Your task to perform on an android device: turn on javascript in the chrome app Image 0: 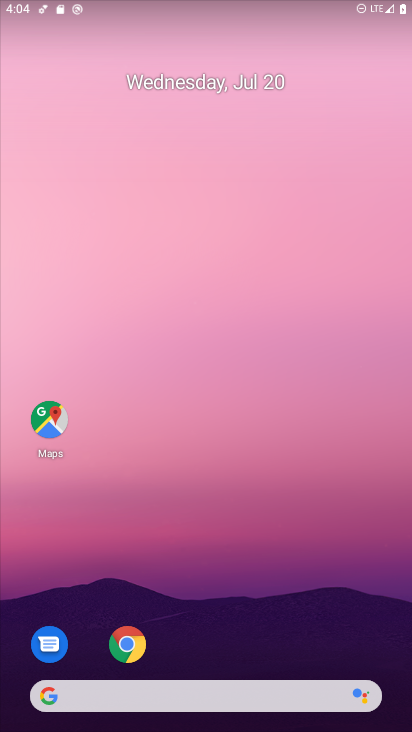
Step 0: drag from (191, 656) to (215, 332)
Your task to perform on an android device: turn on javascript in the chrome app Image 1: 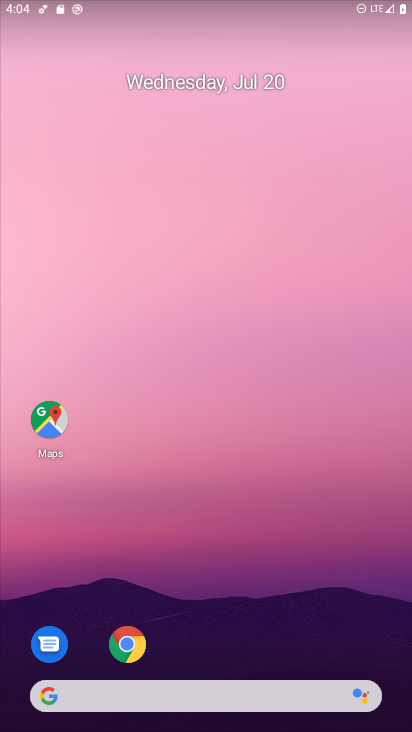
Step 1: drag from (150, 648) to (210, 207)
Your task to perform on an android device: turn on javascript in the chrome app Image 2: 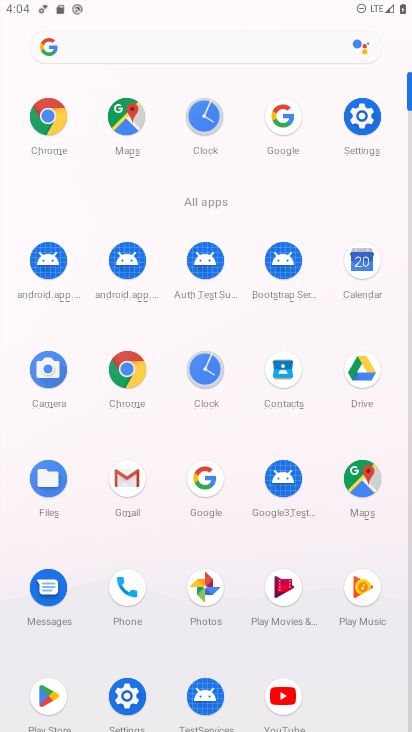
Step 2: click (137, 399)
Your task to perform on an android device: turn on javascript in the chrome app Image 3: 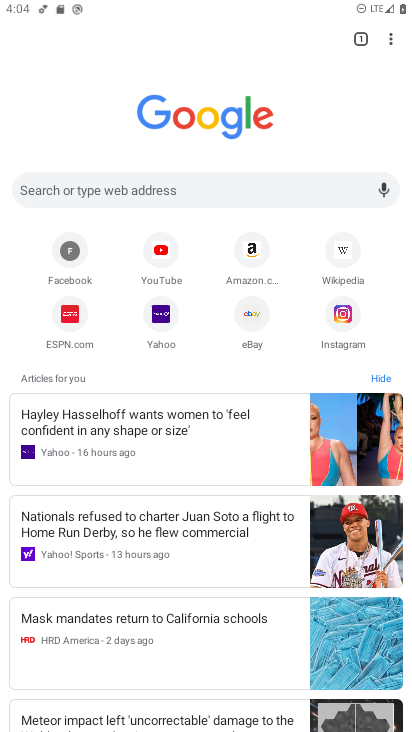
Step 3: click (389, 43)
Your task to perform on an android device: turn on javascript in the chrome app Image 4: 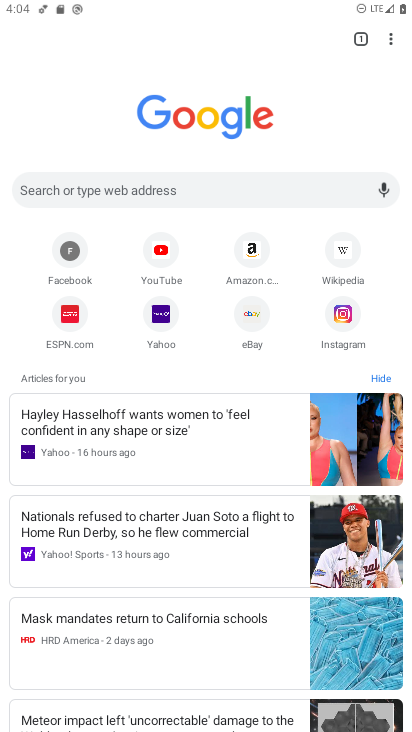
Step 4: click (392, 44)
Your task to perform on an android device: turn on javascript in the chrome app Image 5: 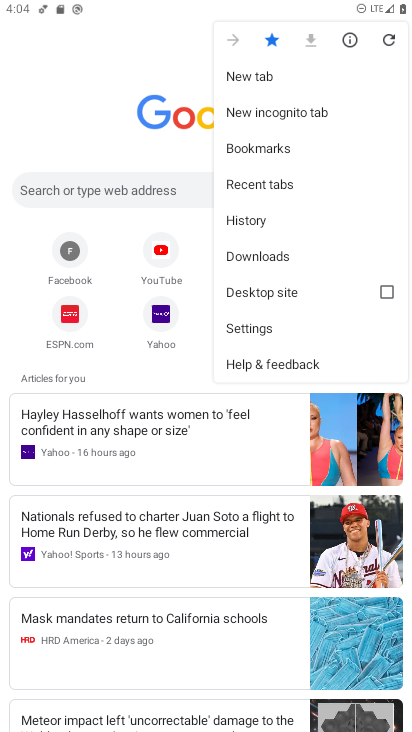
Step 5: click (253, 335)
Your task to perform on an android device: turn on javascript in the chrome app Image 6: 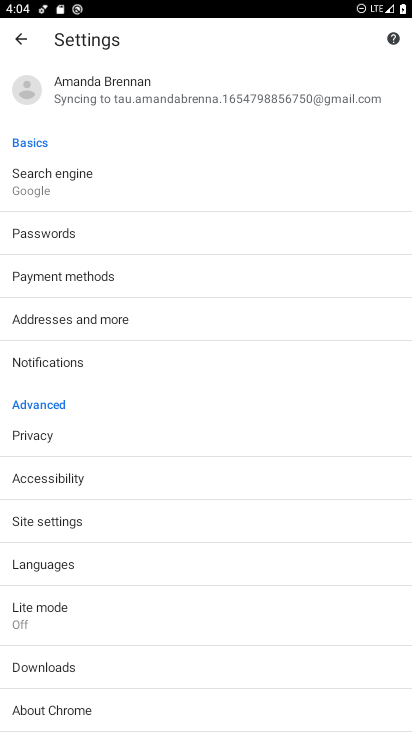
Step 6: drag from (98, 529) to (169, 322)
Your task to perform on an android device: turn on javascript in the chrome app Image 7: 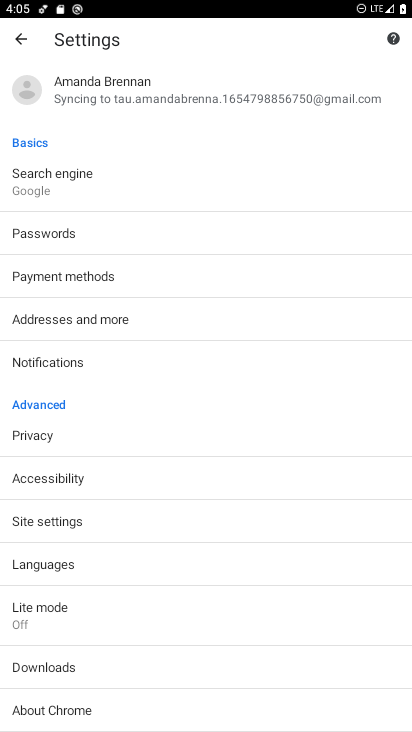
Step 7: click (37, 520)
Your task to perform on an android device: turn on javascript in the chrome app Image 8: 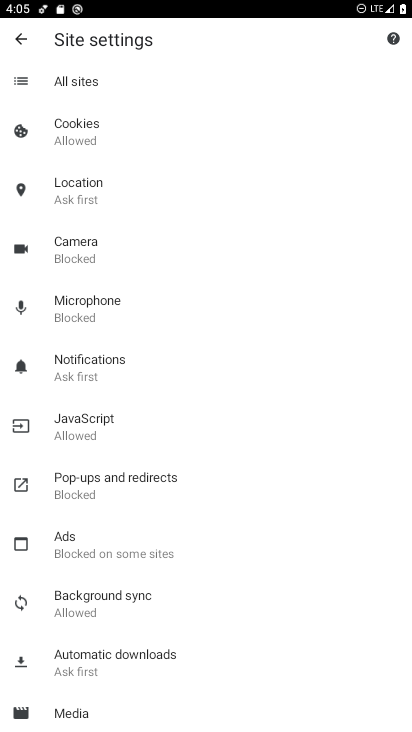
Step 8: click (110, 437)
Your task to perform on an android device: turn on javascript in the chrome app Image 9: 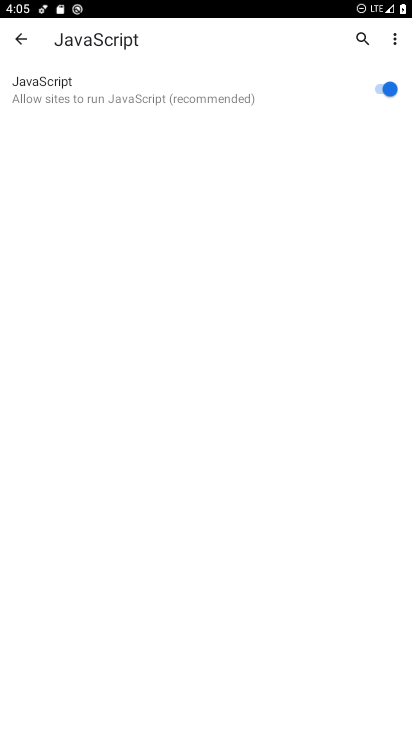
Step 9: task complete